Your task to perform on an android device: toggle javascript in the chrome app Image 0: 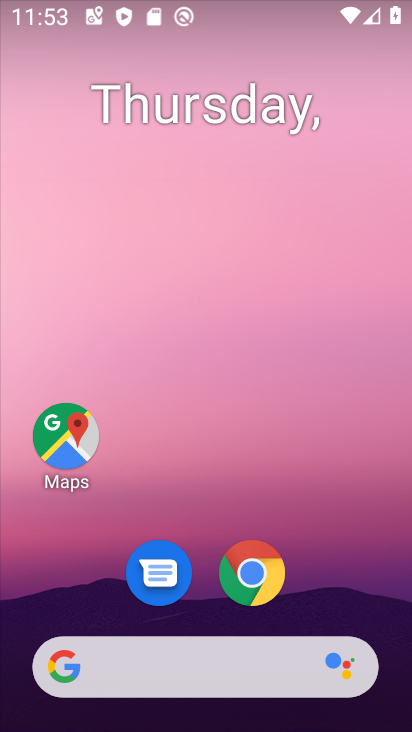
Step 0: click (258, 568)
Your task to perform on an android device: toggle javascript in the chrome app Image 1: 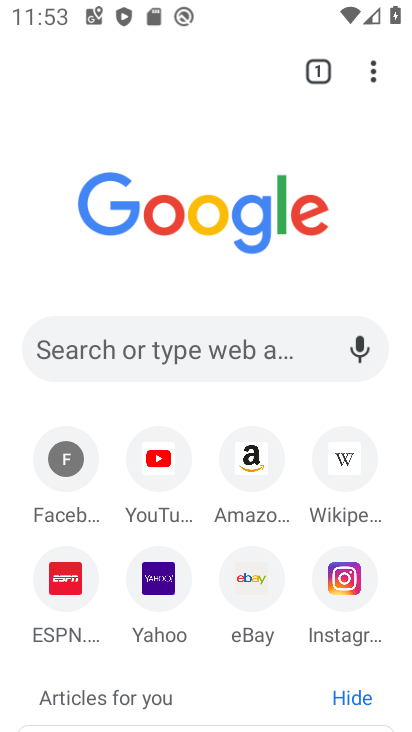
Step 1: click (365, 79)
Your task to perform on an android device: toggle javascript in the chrome app Image 2: 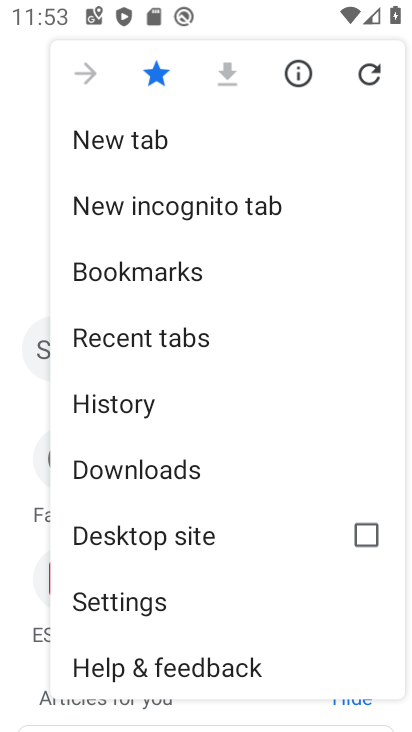
Step 2: click (136, 605)
Your task to perform on an android device: toggle javascript in the chrome app Image 3: 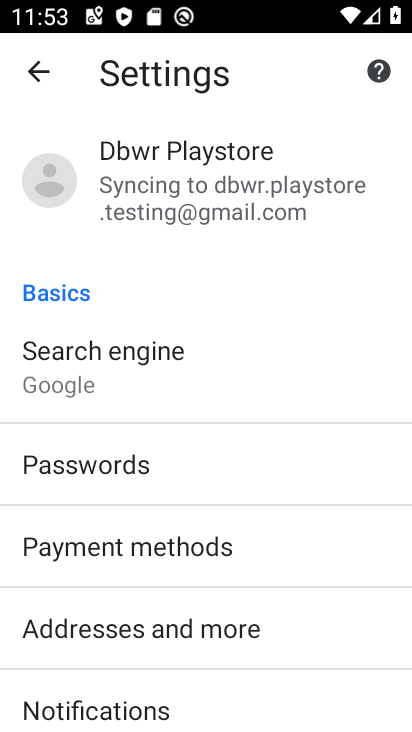
Step 3: drag from (215, 529) to (282, 5)
Your task to perform on an android device: toggle javascript in the chrome app Image 4: 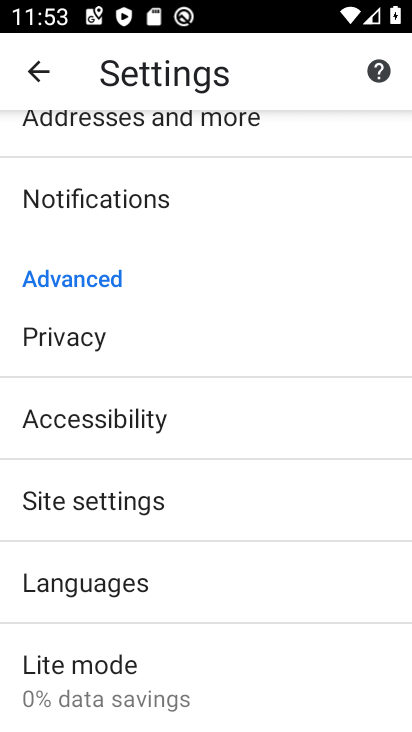
Step 4: click (73, 510)
Your task to perform on an android device: toggle javascript in the chrome app Image 5: 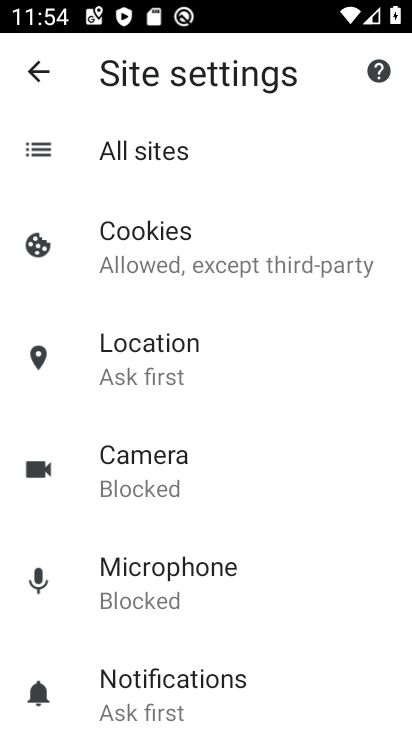
Step 5: drag from (244, 576) to (245, 125)
Your task to perform on an android device: toggle javascript in the chrome app Image 6: 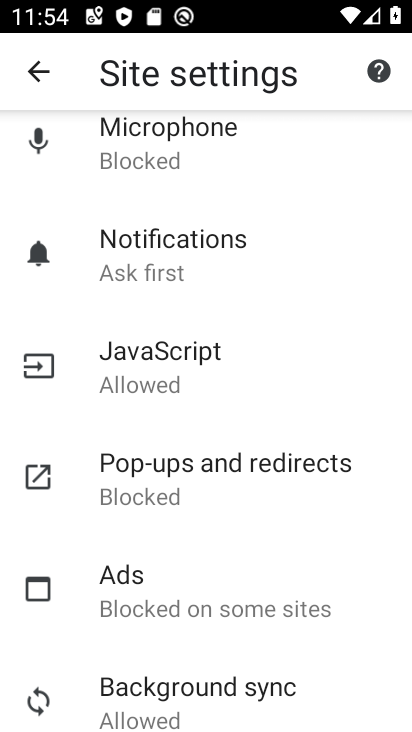
Step 6: click (144, 353)
Your task to perform on an android device: toggle javascript in the chrome app Image 7: 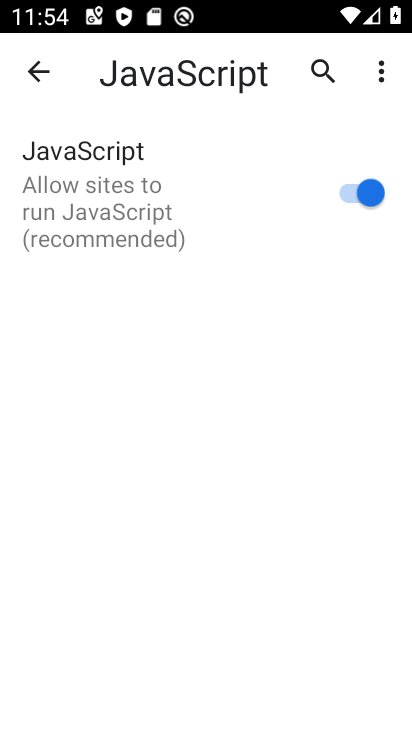
Step 7: click (351, 201)
Your task to perform on an android device: toggle javascript in the chrome app Image 8: 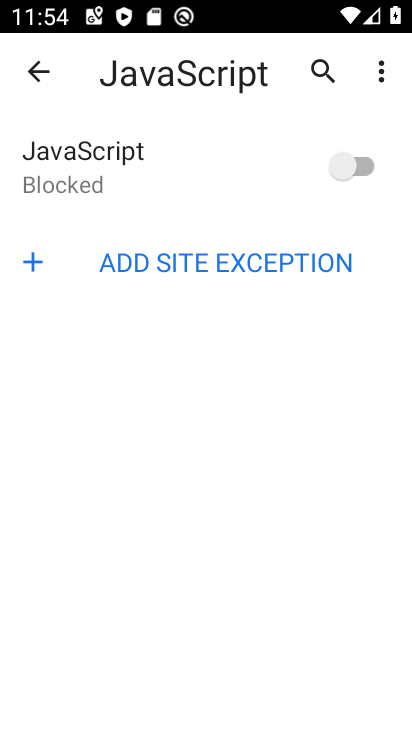
Step 8: task complete